Your task to perform on an android device: Go to CNN.com Image 0: 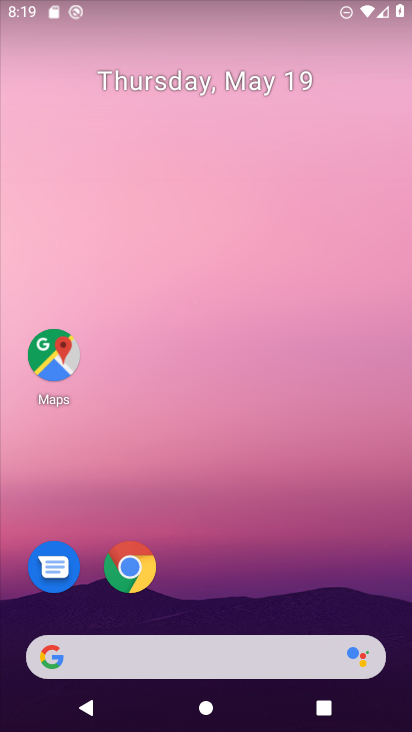
Step 0: click (147, 650)
Your task to perform on an android device: Go to CNN.com Image 1: 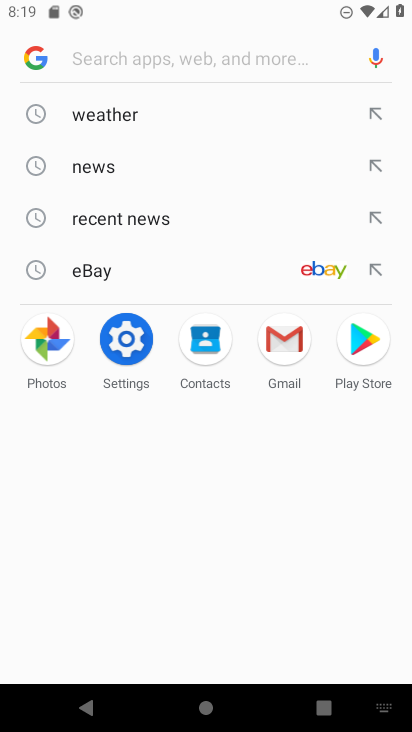
Step 1: type "cnn"
Your task to perform on an android device: Go to CNN.com Image 2: 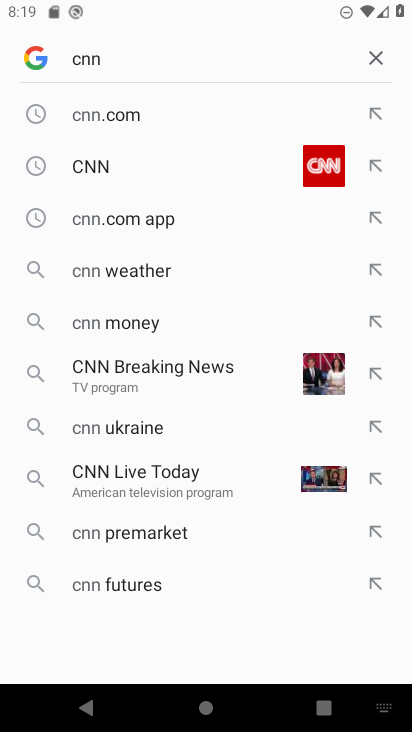
Step 2: click (263, 185)
Your task to perform on an android device: Go to CNN.com Image 3: 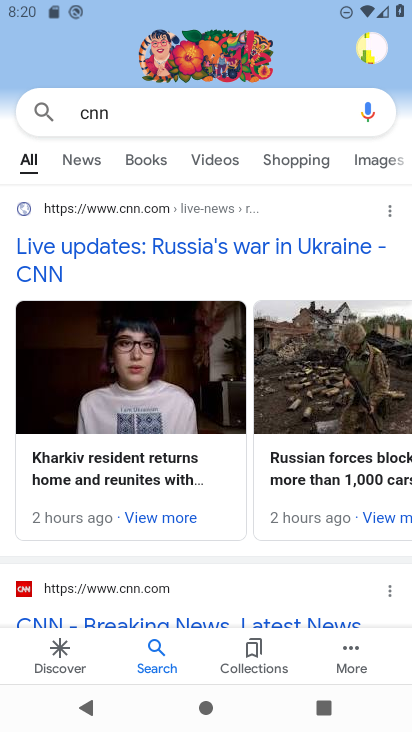
Step 3: task complete